Your task to perform on an android device: Is it going to rain this weekend? Image 0: 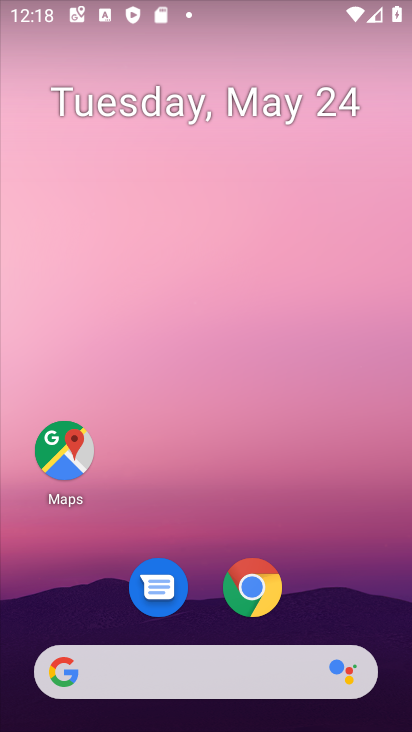
Step 0: drag from (67, 723) to (0, 717)
Your task to perform on an android device: Is it going to rain this weekend? Image 1: 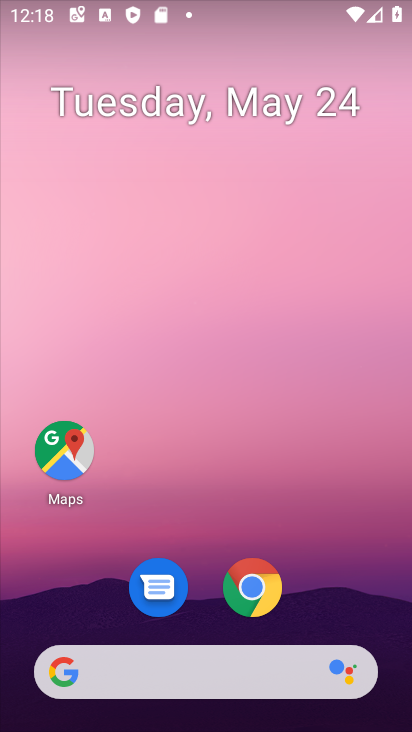
Step 1: click (177, 688)
Your task to perform on an android device: Is it going to rain this weekend? Image 2: 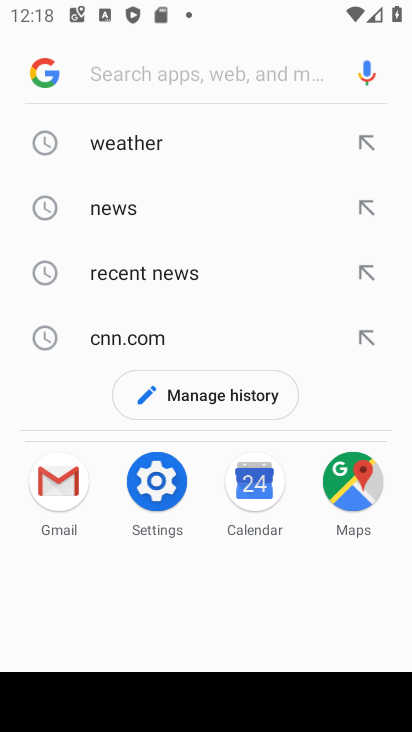
Step 2: type " Is it going to rain this weekend?"
Your task to perform on an android device: Is it going to rain this weekend? Image 3: 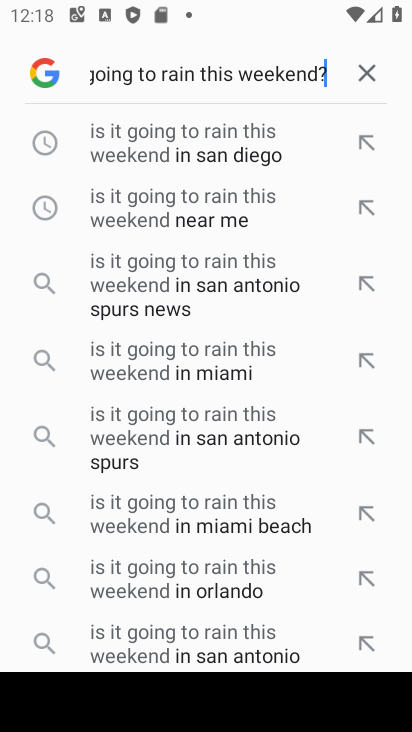
Step 3: click (259, 207)
Your task to perform on an android device: Is it going to rain this weekend? Image 4: 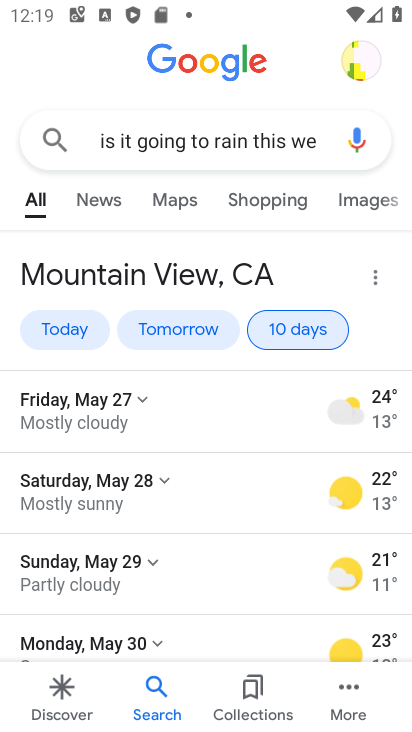
Step 4: task complete